Your task to perform on an android device: Open Chrome and go to the settings page Image 0: 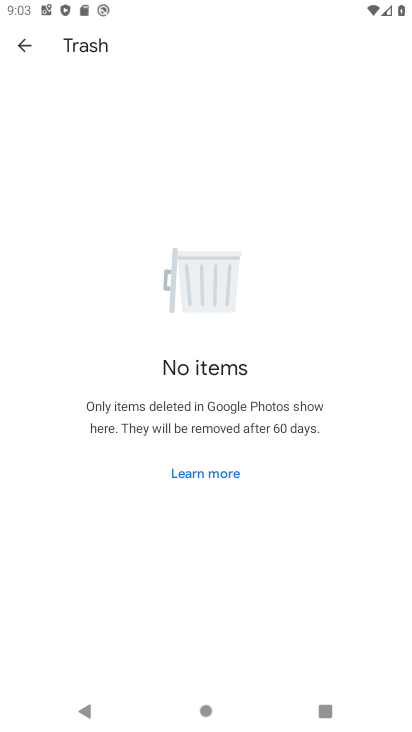
Step 0: press home button
Your task to perform on an android device: Open Chrome and go to the settings page Image 1: 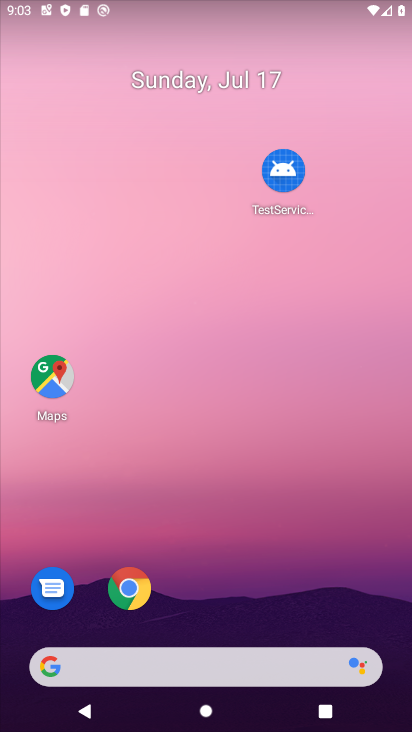
Step 1: drag from (286, 680) to (307, 118)
Your task to perform on an android device: Open Chrome and go to the settings page Image 2: 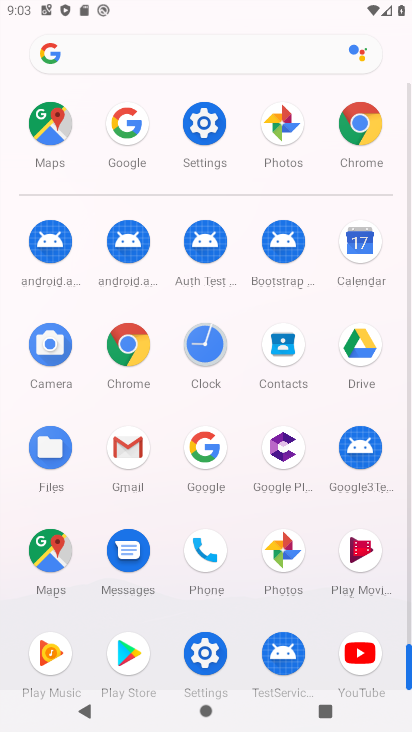
Step 2: click (372, 165)
Your task to perform on an android device: Open Chrome and go to the settings page Image 3: 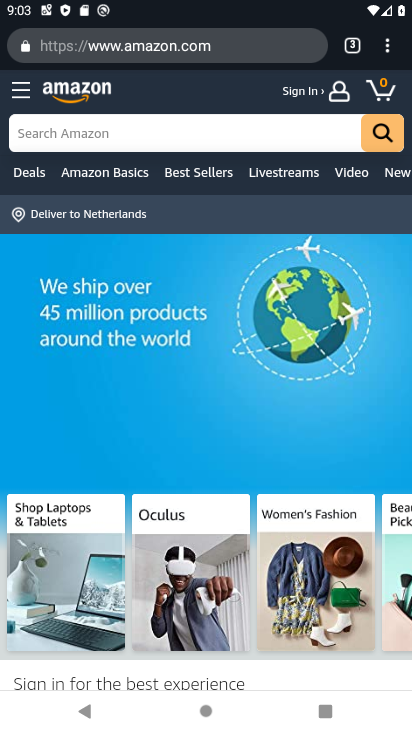
Step 3: click (393, 48)
Your task to perform on an android device: Open Chrome and go to the settings page Image 4: 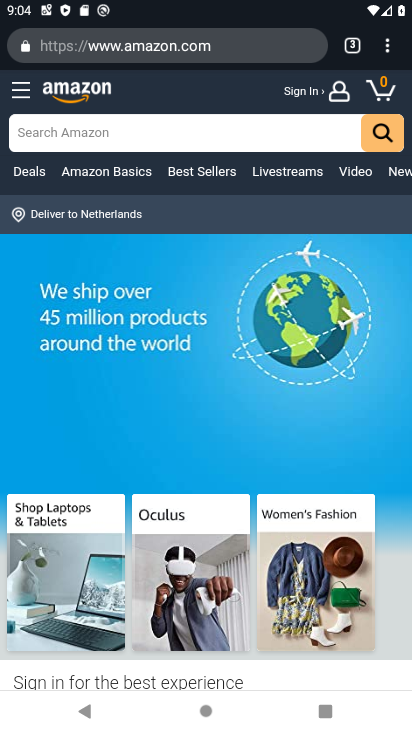
Step 4: click (388, 54)
Your task to perform on an android device: Open Chrome and go to the settings page Image 5: 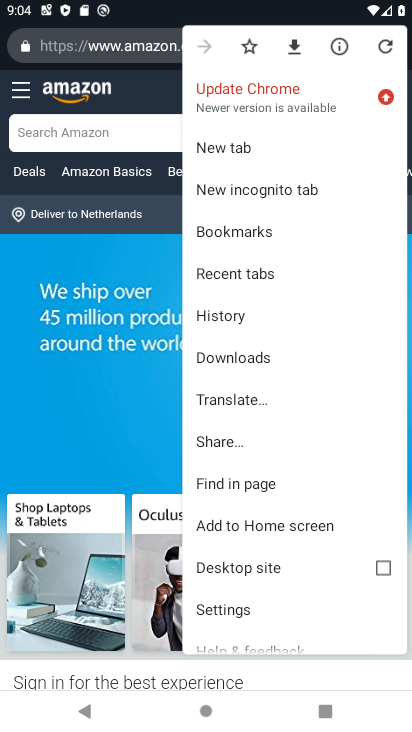
Step 5: click (244, 611)
Your task to perform on an android device: Open Chrome and go to the settings page Image 6: 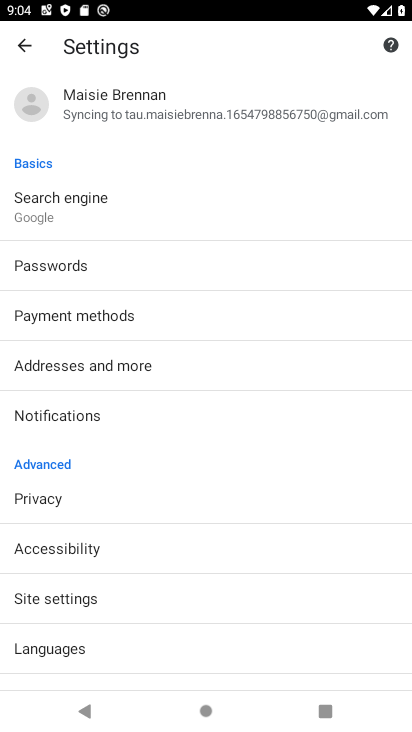
Step 6: task complete